Your task to perform on an android device: Check the news Image 0: 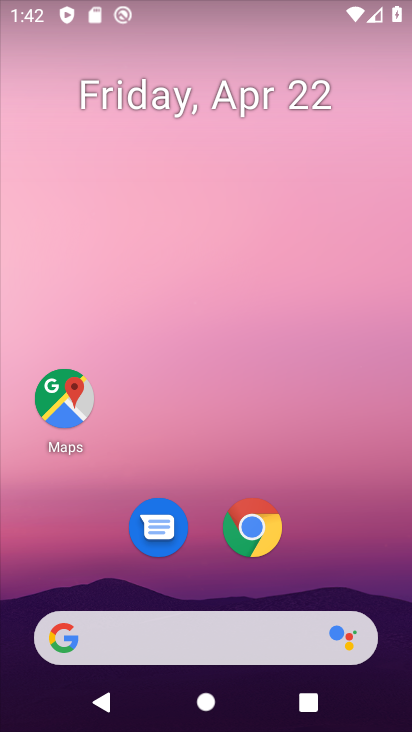
Step 0: drag from (359, 601) to (305, 87)
Your task to perform on an android device: Check the news Image 1: 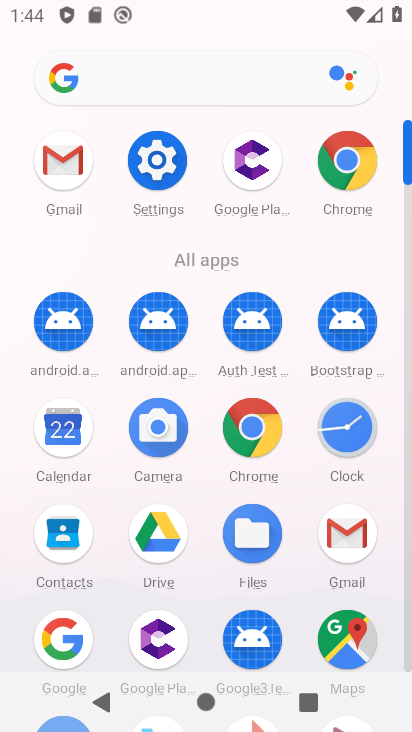
Step 1: click (250, 443)
Your task to perform on an android device: Check the news Image 2: 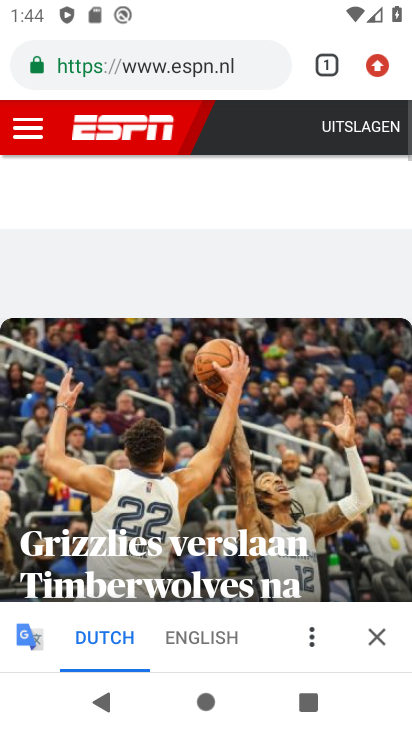
Step 2: press back button
Your task to perform on an android device: Check the news Image 3: 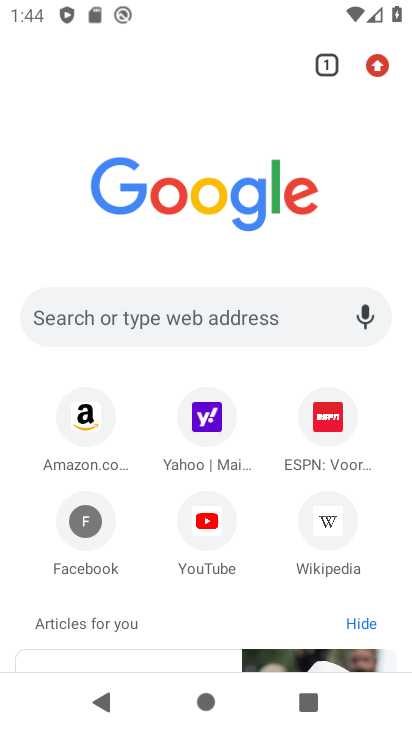
Step 3: drag from (198, 597) to (207, 244)
Your task to perform on an android device: Check the news Image 4: 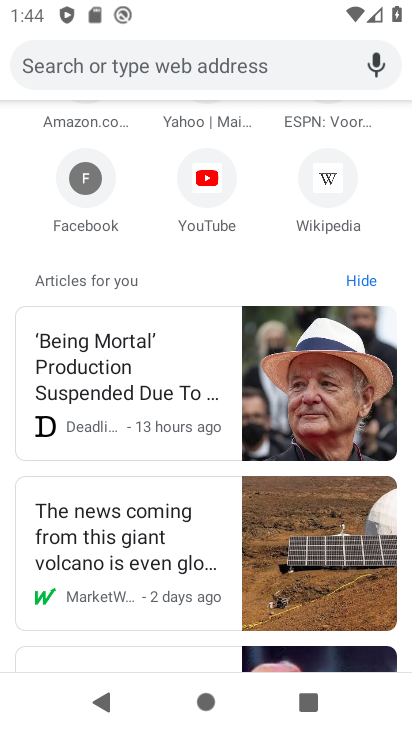
Step 4: click (156, 412)
Your task to perform on an android device: Check the news Image 5: 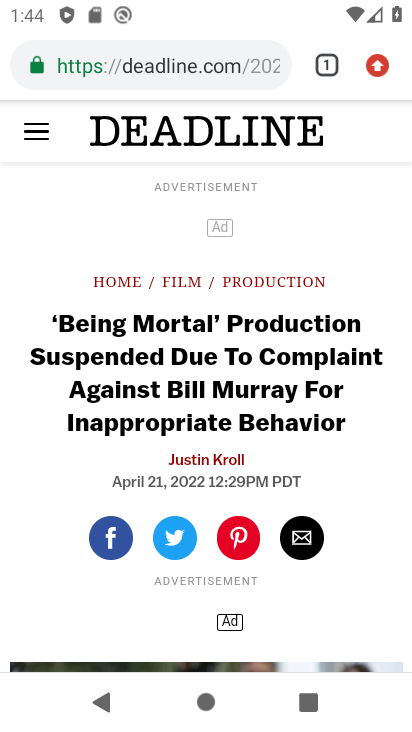
Step 5: task complete